Your task to perform on an android device: change text size in settings app Image 0: 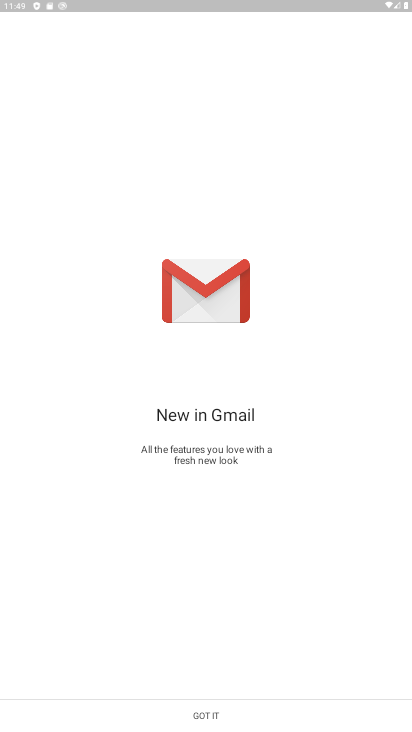
Step 0: press home button
Your task to perform on an android device: change text size in settings app Image 1: 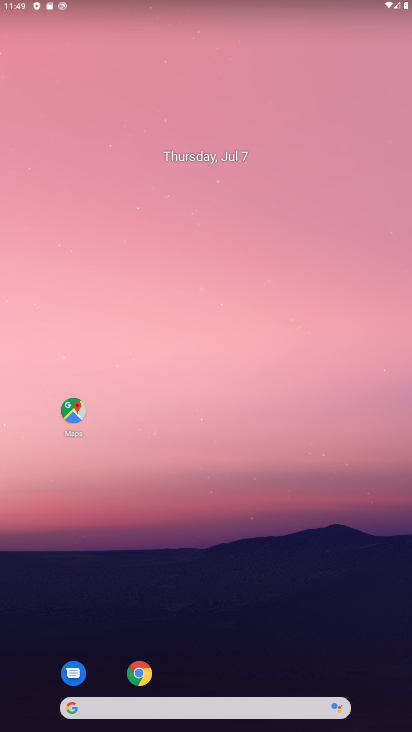
Step 1: drag from (266, 638) to (290, 230)
Your task to perform on an android device: change text size in settings app Image 2: 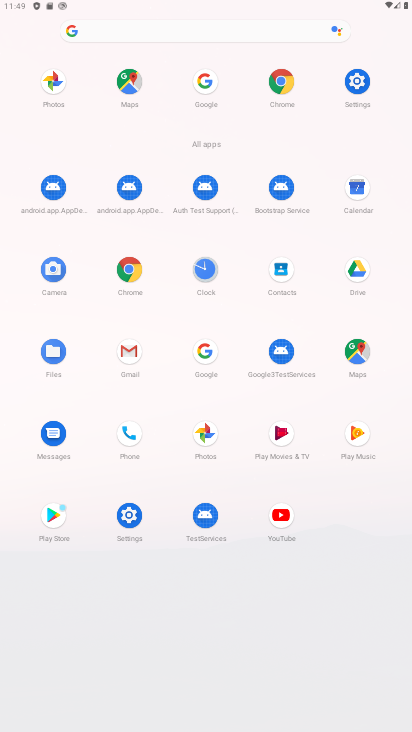
Step 2: click (134, 508)
Your task to perform on an android device: change text size in settings app Image 3: 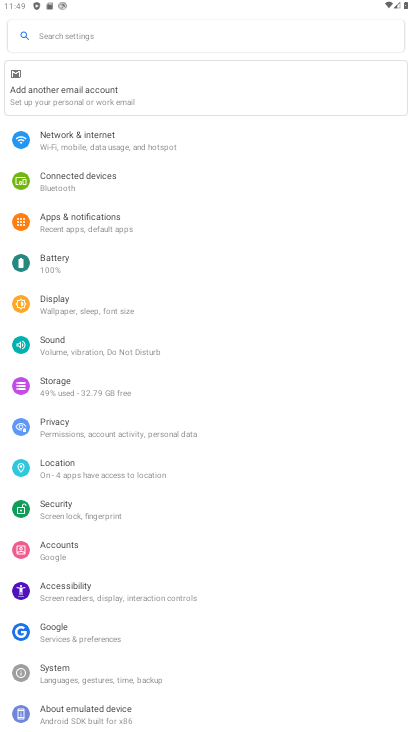
Step 3: click (82, 321)
Your task to perform on an android device: change text size in settings app Image 4: 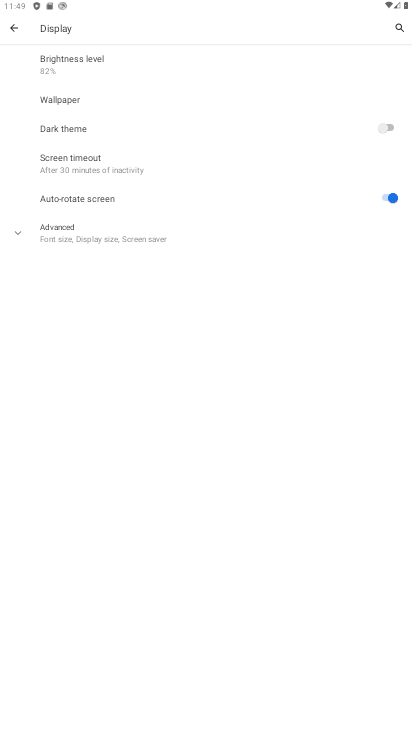
Step 4: click (160, 241)
Your task to perform on an android device: change text size in settings app Image 5: 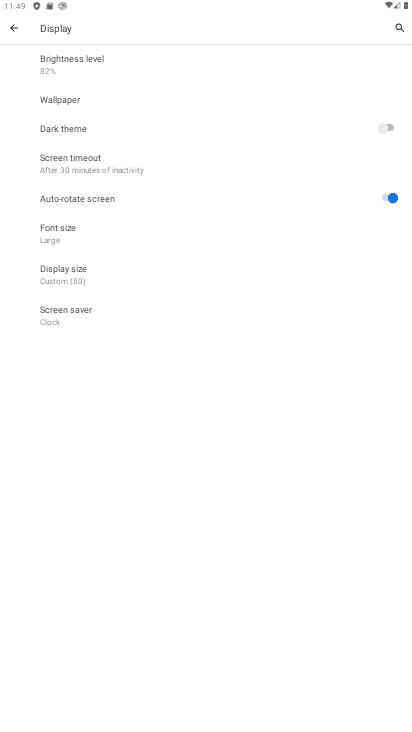
Step 5: click (133, 244)
Your task to perform on an android device: change text size in settings app Image 6: 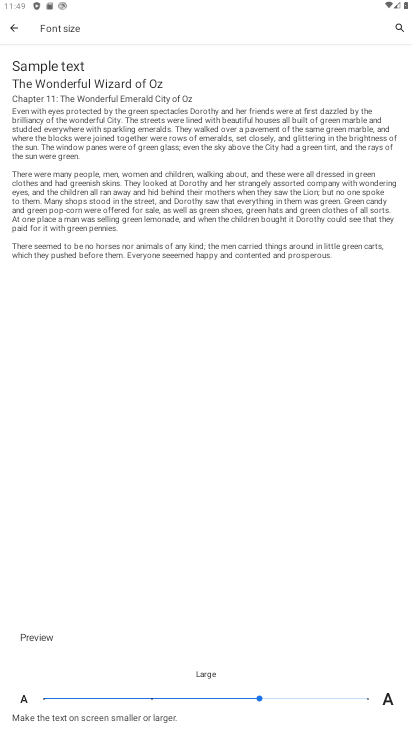
Step 6: drag from (261, 700) to (350, 685)
Your task to perform on an android device: change text size in settings app Image 7: 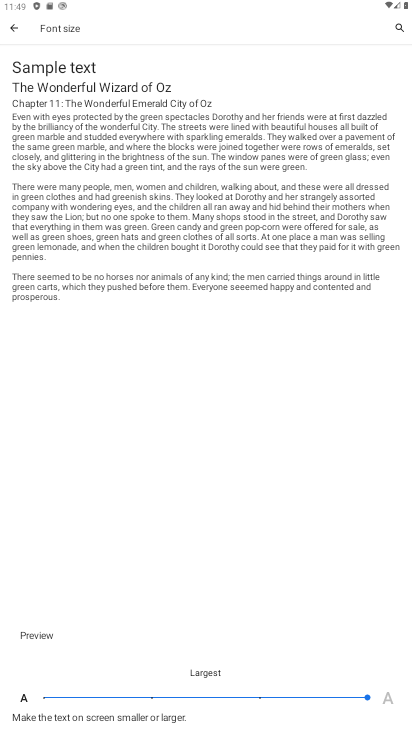
Step 7: press back button
Your task to perform on an android device: change text size in settings app Image 8: 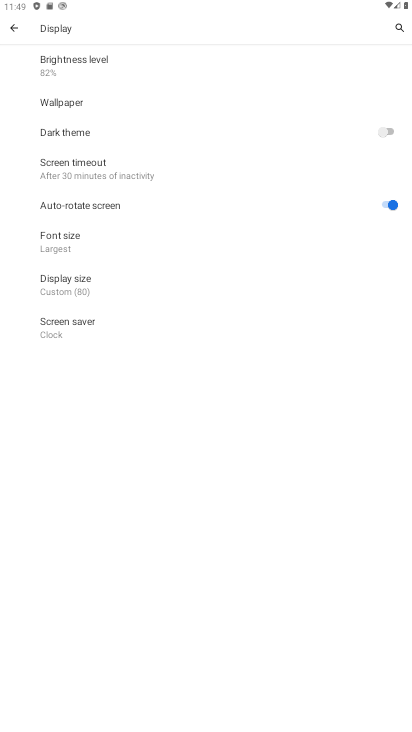
Step 8: click (167, 293)
Your task to perform on an android device: change text size in settings app Image 9: 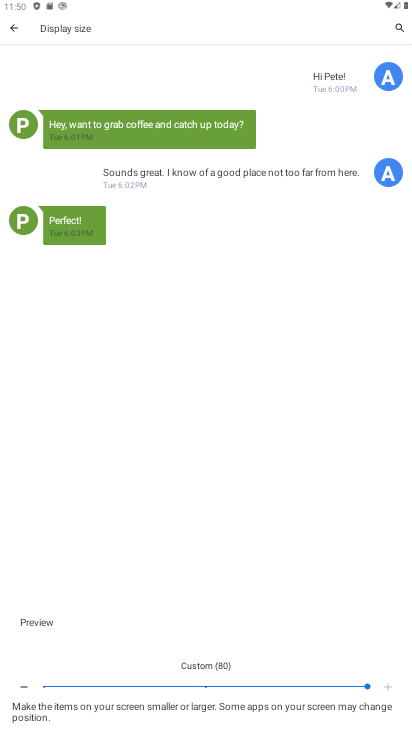
Step 9: task complete